Your task to perform on an android device: remove spam from my inbox in the gmail app Image 0: 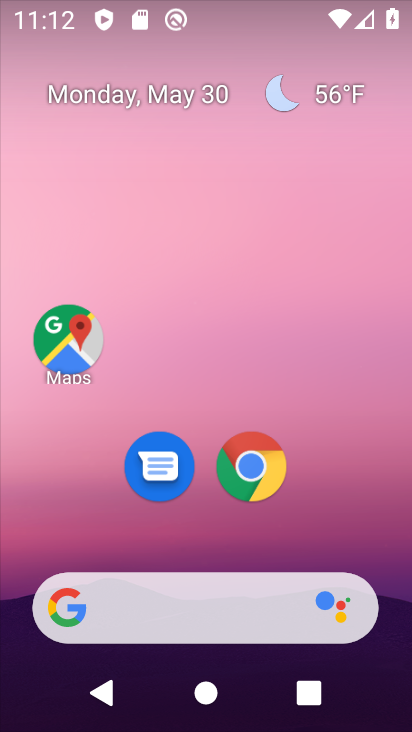
Step 0: drag from (351, 524) to (338, 36)
Your task to perform on an android device: remove spam from my inbox in the gmail app Image 1: 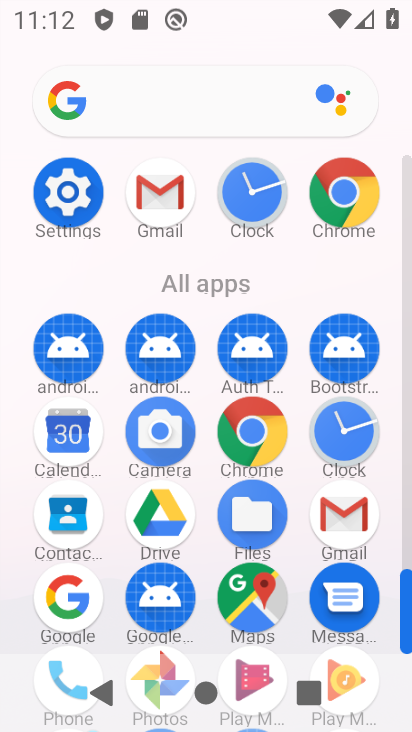
Step 1: click (161, 197)
Your task to perform on an android device: remove spam from my inbox in the gmail app Image 2: 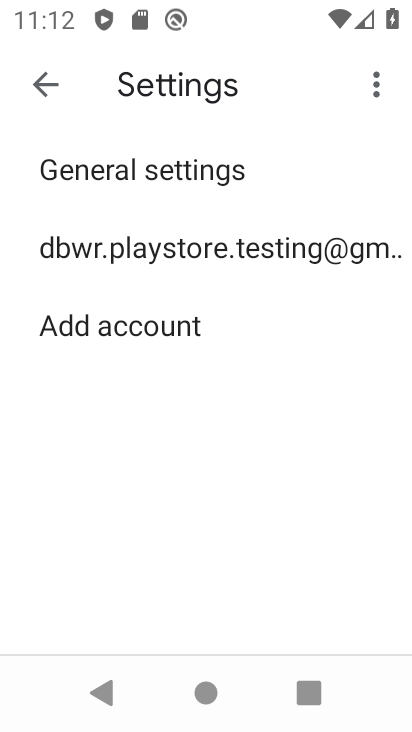
Step 2: click (54, 88)
Your task to perform on an android device: remove spam from my inbox in the gmail app Image 3: 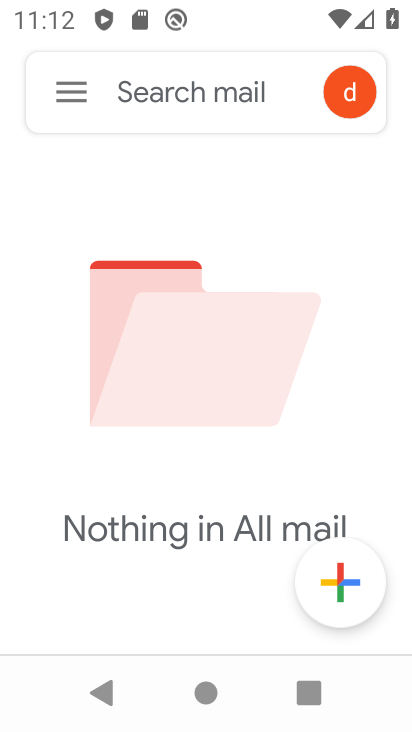
Step 3: click (72, 88)
Your task to perform on an android device: remove spam from my inbox in the gmail app Image 4: 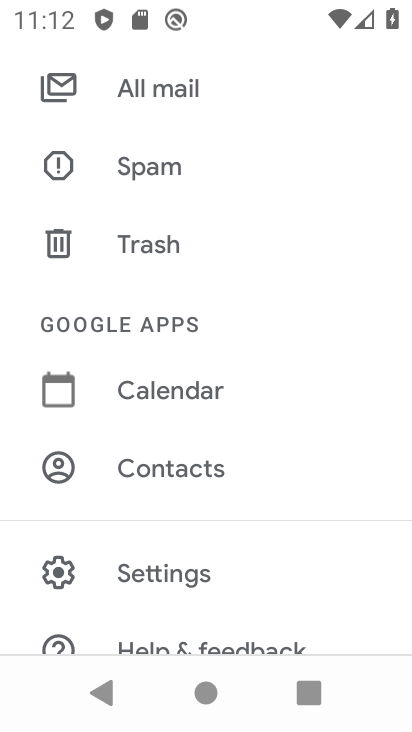
Step 4: click (168, 171)
Your task to perform on an android device: remove spam from my inbox in the gmail app Image 5: 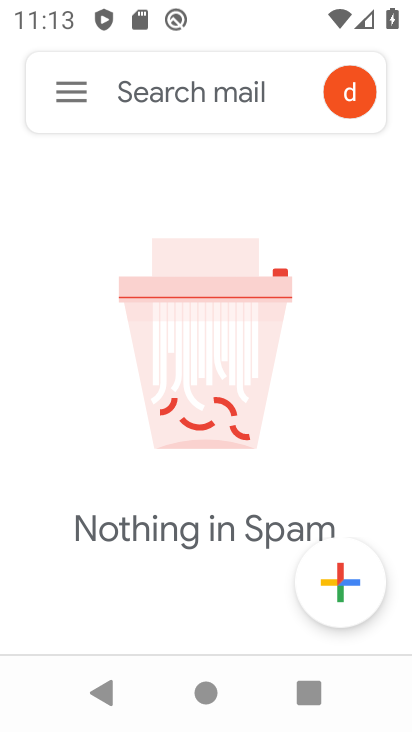
Step 5: task complete